Your task to perform on an android device: create a new album in the google photos Image 0: 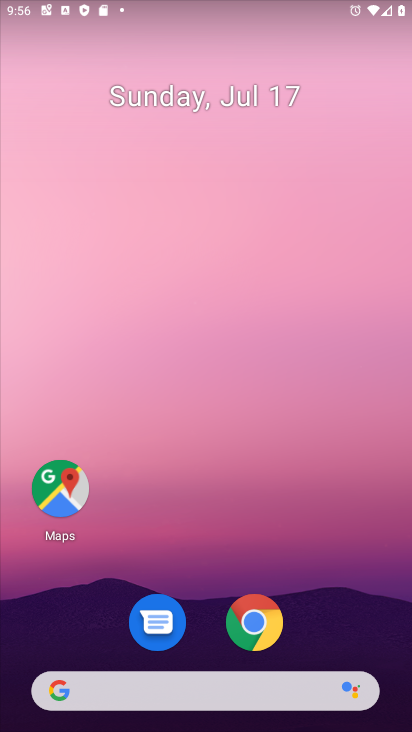
Step 0: drag from (166, 696) to (195, 36)
Your task to perform on an android device: create a new album in the google photos Image 1: 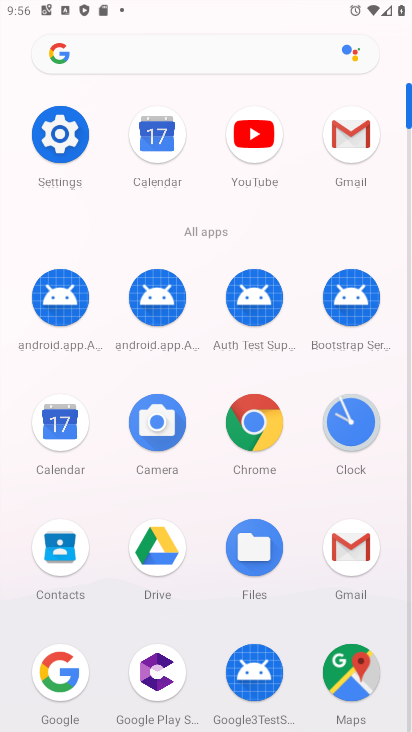
Step 1: drag from (268, 526) to (253, 146)
Your task to perform on an android device: create a new album in the google photos Image 2: 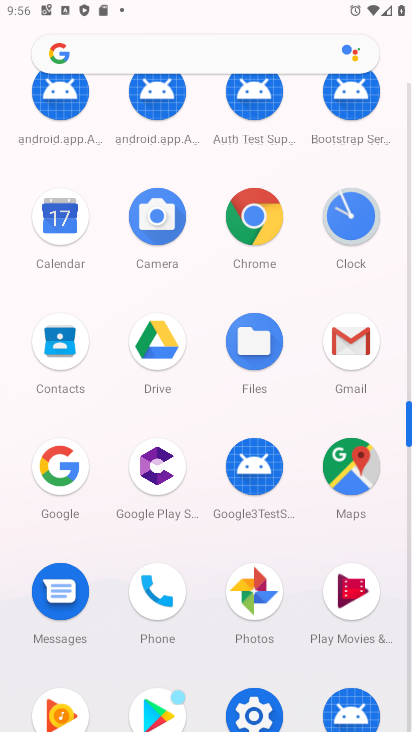
Step 2: click (270, 596)
Your task to perform on an android device: create a new album in the google photos Image 3: 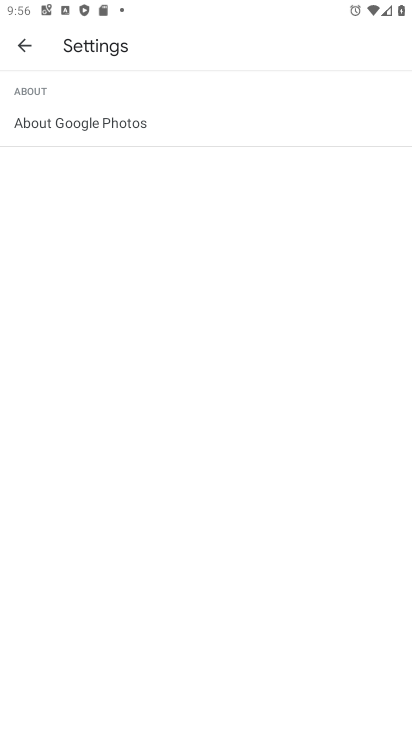
Step 3: click (12, 47)
Your task to perform on an android device: create a new album in the google photos Image 4: 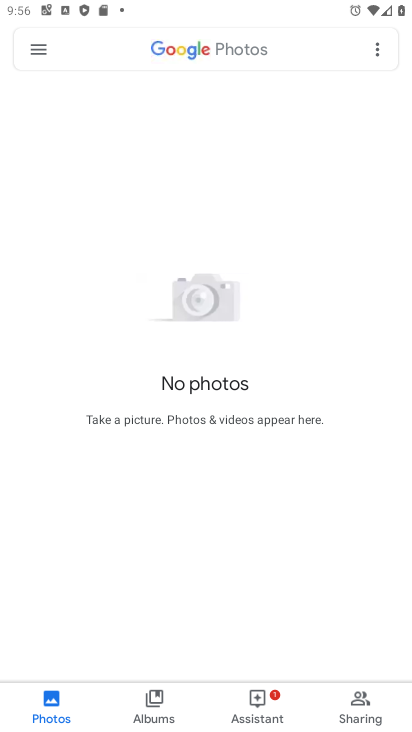
Step 4: click (160, 700)
Your task to perform on an android device: create a new album in the google photos Image 5: 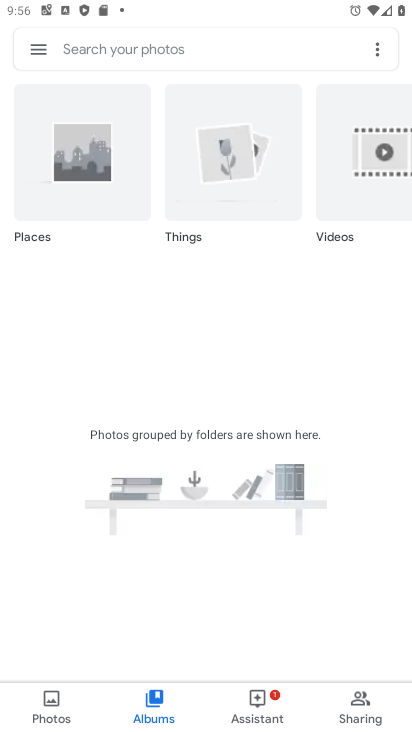
Step 5: click (43, 706)
Your task to perform on an android device: create a new album in the google photos Image 6: 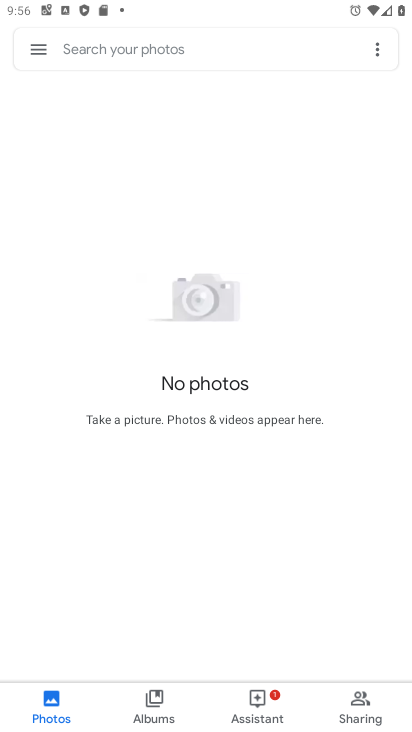
Step 6: task complete